Your task to perform on an android device: turn on javascript in the chrome app Image 0: 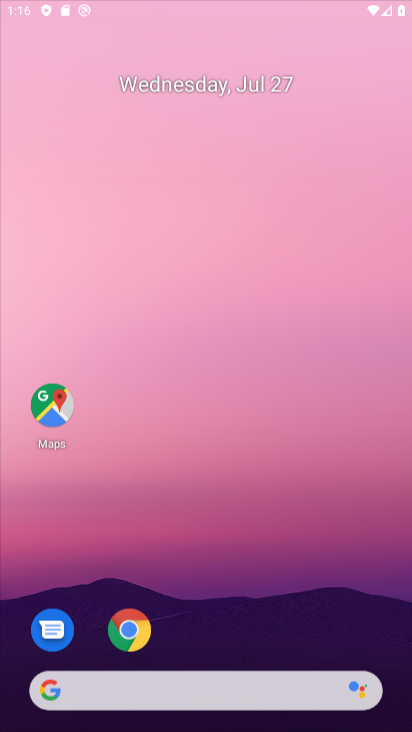
Step 0: drag from (210, 1) to (103, 6)
Your task to perform on an android device: turn on javascript in the chrome app Image 1: 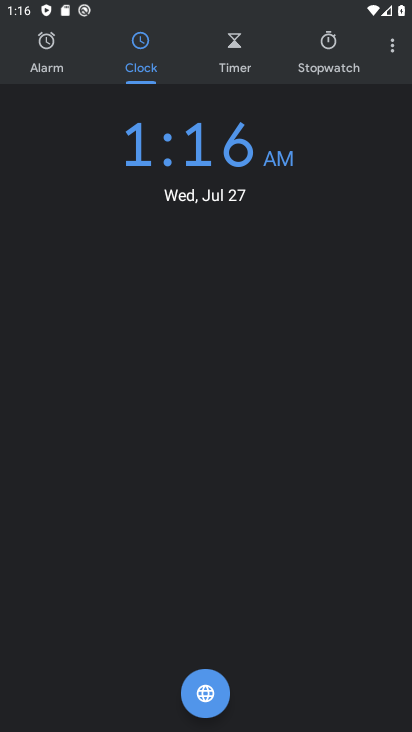
Step 1: press home button
Your task to perform on an android device: turn on javascript in the chrome app Image 2: 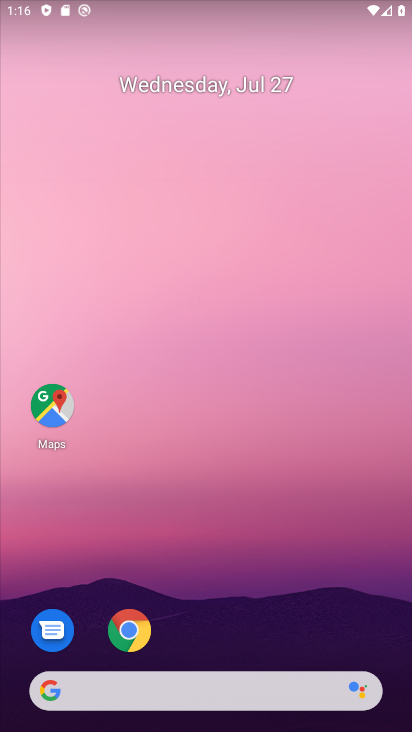
Step 2: click (122, 633)
Your task to perform on an android device: turn on javascript in the chrome app Image 3: 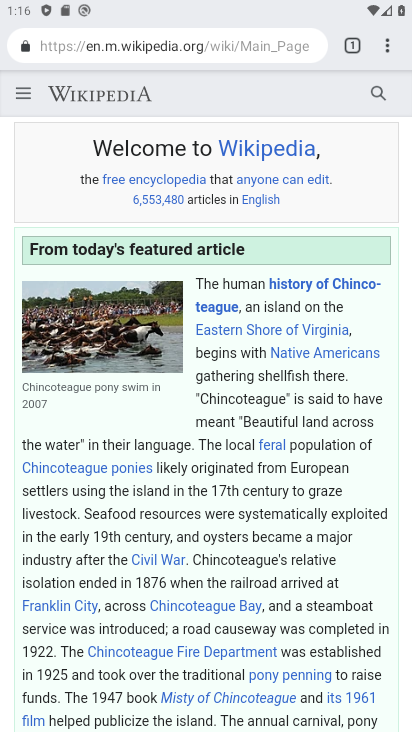
Step 3: drag from (386, 47) to (251, 553)
Your task to perform on an android device: turn on javascript in the chrome app Image 4: 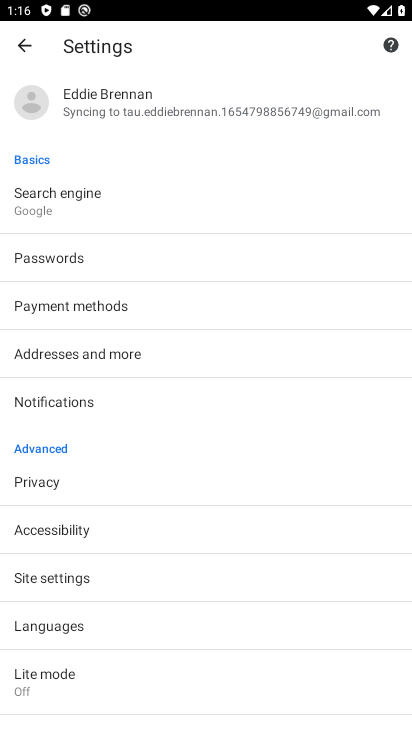
Step 4: click (71, 580)
Your task to perform on an android device: turn on javascript in the chrome app Image 5: 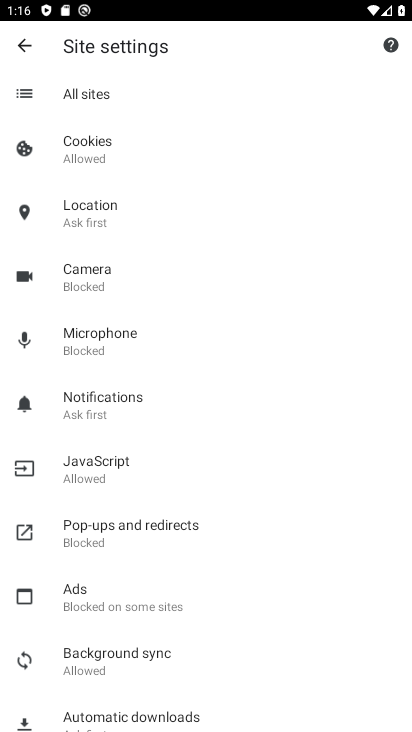
Step 5: click (88, 473)
Your task to perform on an android device: turn on javascript in the chrome app Image 6: 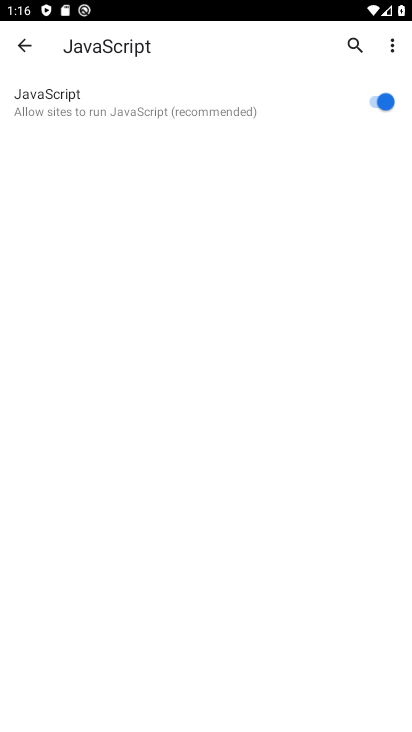
Step 6: click (88, 473)
Your task to perform on an android device: turn on javascript in the chrome app Image 7: 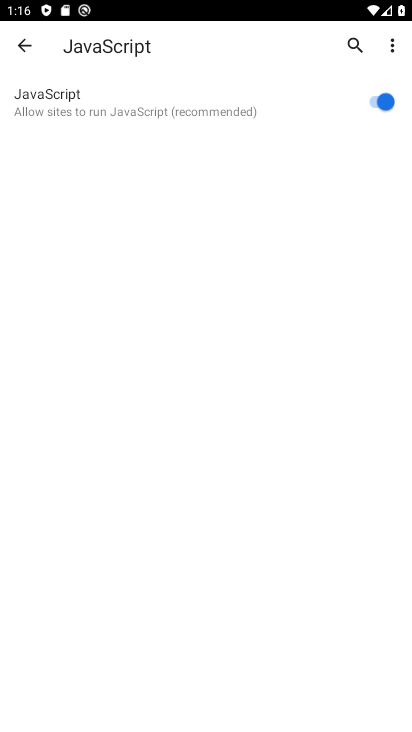
Step 7: task complete